Your task to perform on an android device: find snoozed emails in the gmail app Image 0: 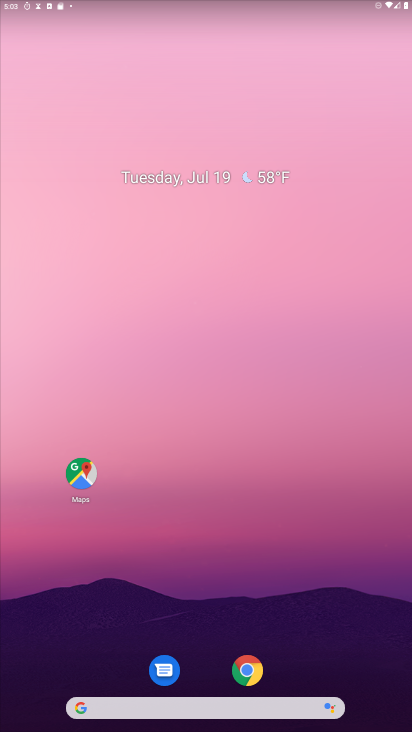
Step 0: drag from (242, 692) to (273, 132)
Your task to perform on an android device: find snoozed emails in the gmail app Image 1: 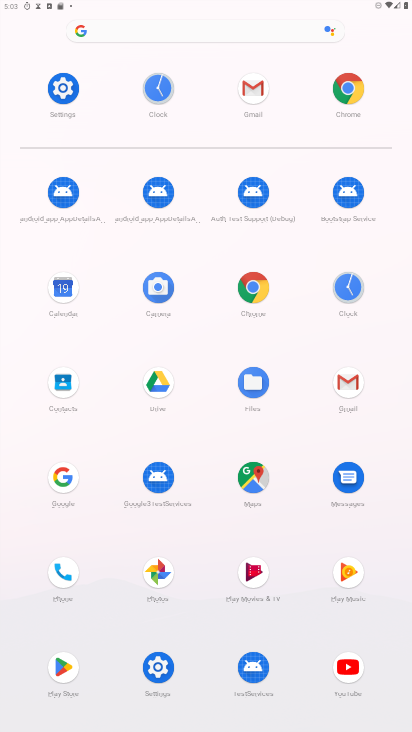
Step 1: click (354, 394)
Your task to perform on an android device: find snoozed emails in the gmail app Image 2: 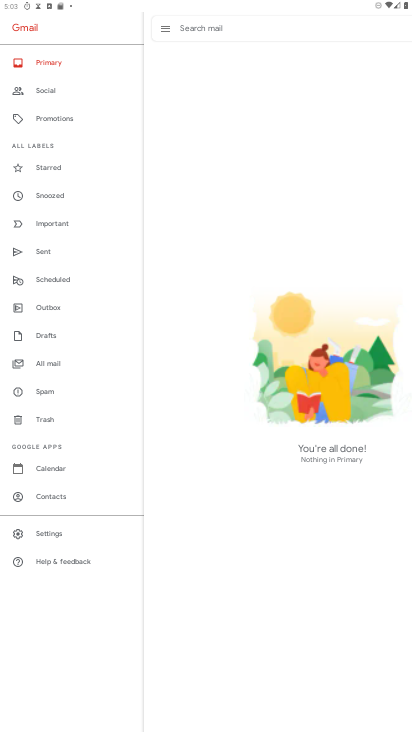
Step 2: click (48, 198)
Your task to perform on an android device: find snoozed emails in the gmail app Image 3: 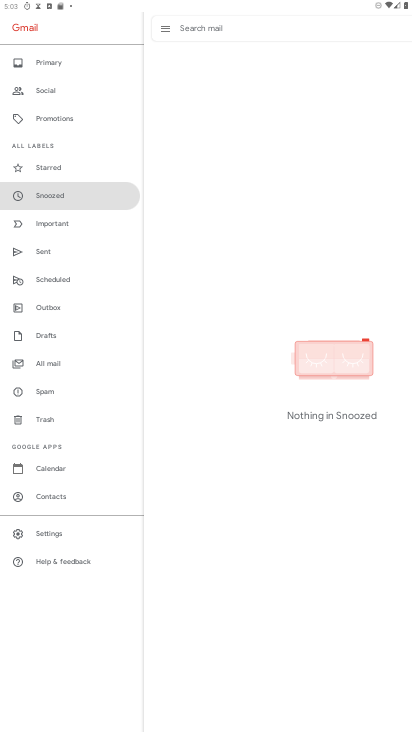
Step 3: task complete